Your task to perform on an android device: Open Android settings Image 0: 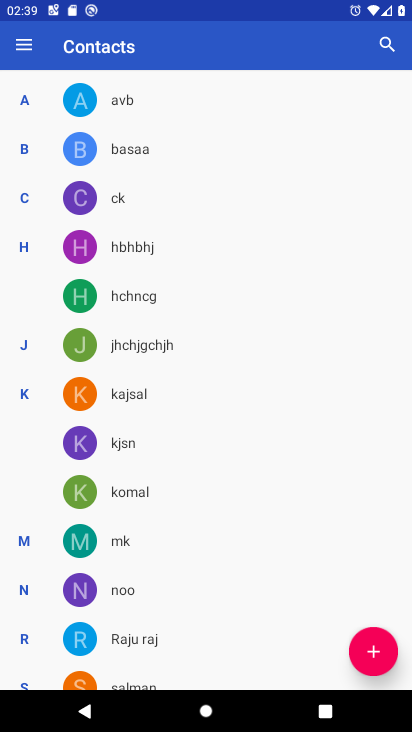
Step 0: press home button
Your task to perform on an android device: Open Android settings Image 1: 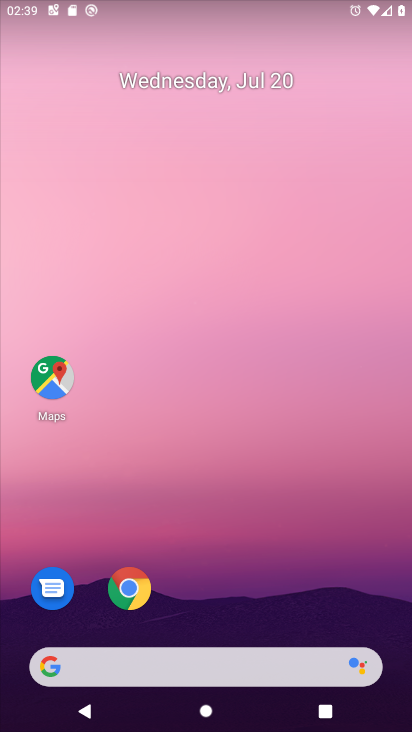
Step 1: drag from (188, 609) to (194, 218)
Your task to perform on an android device: Open Android settings Image 2: 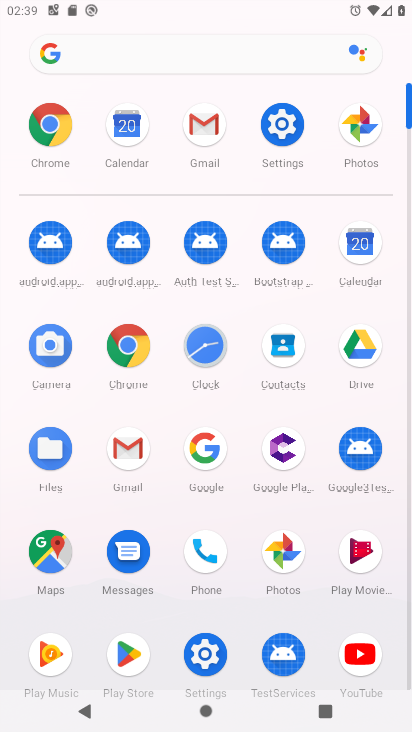
Step 2: click (277, 112)
Your task to perform on an android device: Open Android settings Image 3: 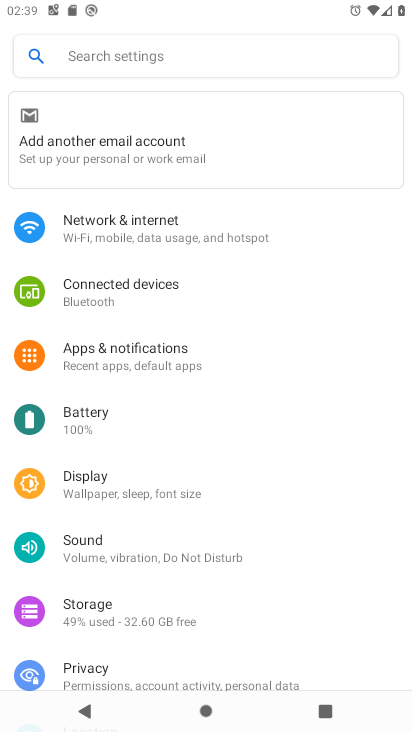
Step 3: click (312, 334)
Your task to perform on an android device: Open Android settings Image 4: 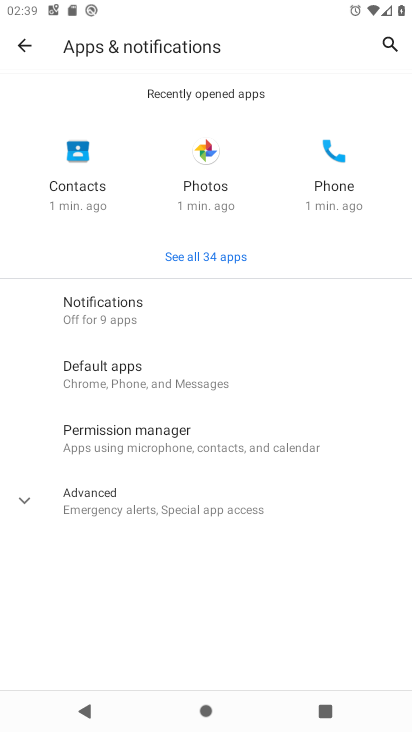
Step 4: click (24, 39)
Your task to perform on an android device: Open Android settings Image 5: 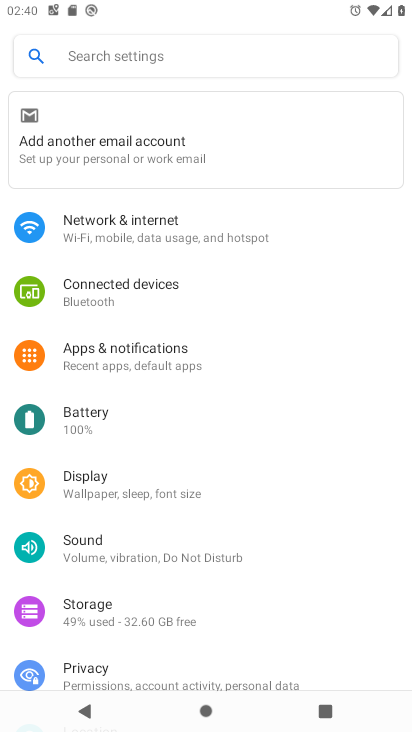
Step 5: task complete